Your task to perform on an android device: Go to calendar. Show me events next week Image 0: 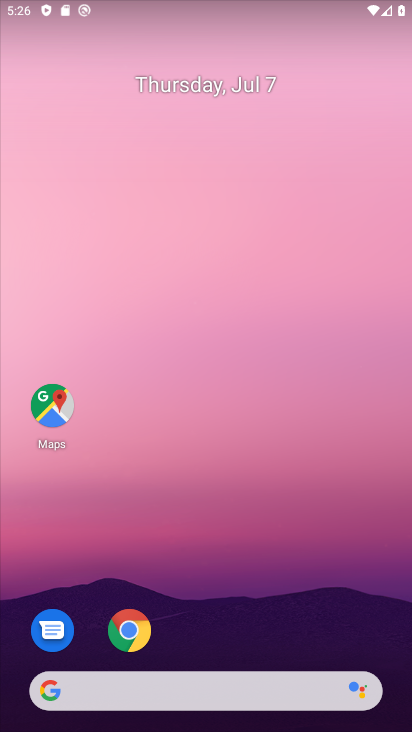
Step 0: press home button
Your task to perform on an android device: Go to calendar. Show me events next week Image 1: 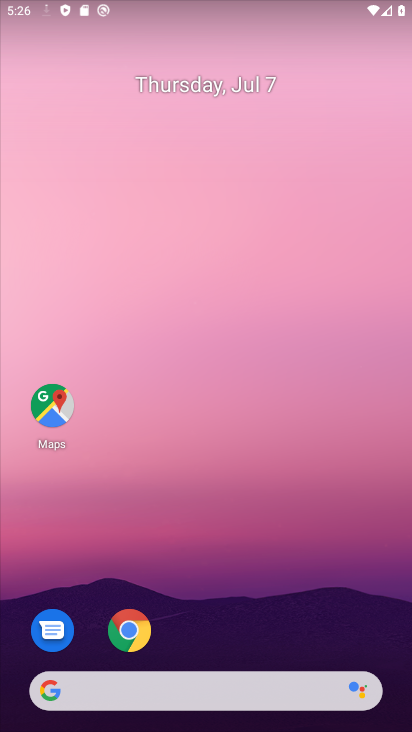
Step 1: drag from (261, 654) to (201, 69)
Your task to perform on an android device: Go to calendar. Show me events next week Image 2: 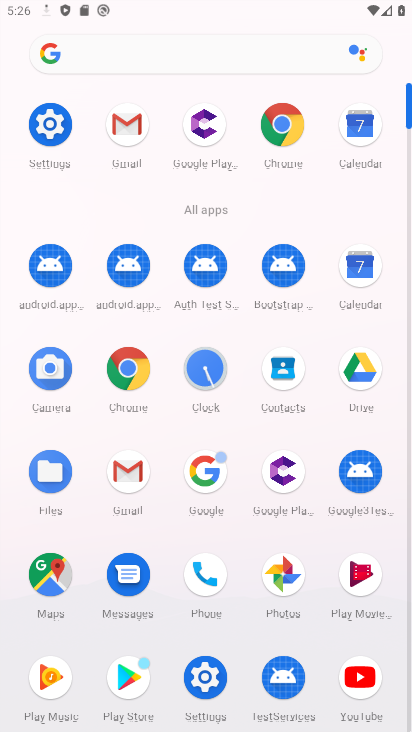
Step 2: click (368, 127)
Your task to perform on an android device: Go to calendar. Show me events next week Image 3: 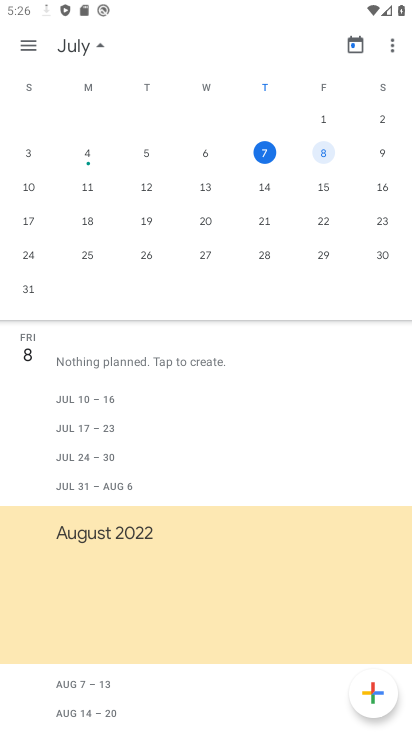
Step 3: click (388, 154)
Your task to perform on an android device: Go to calendar. Show me events next week Image 4: 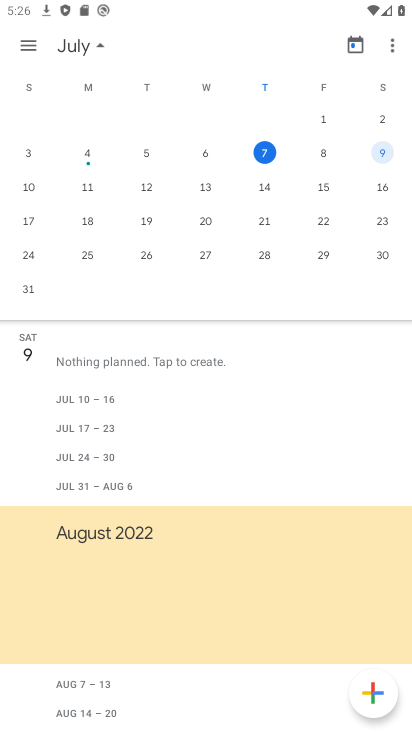
Step 4: click (34, 195)
Your task to perform on an android device: Go to calendar. Show me events next week Image 5: 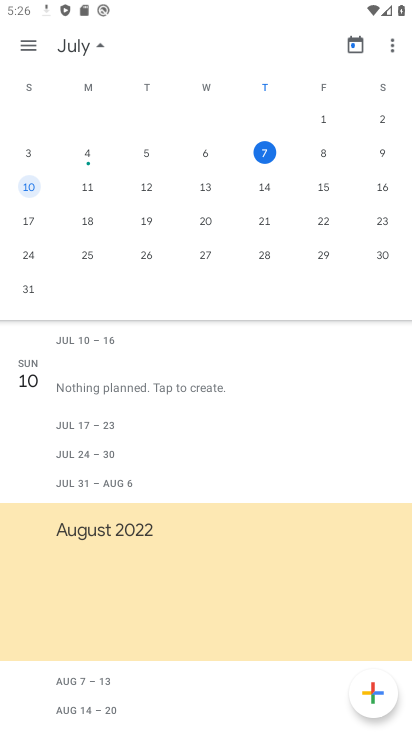
Step 5: click (95, 192)
Your task to perform on an android device: Go to calendar. Show me events next week Image 6: 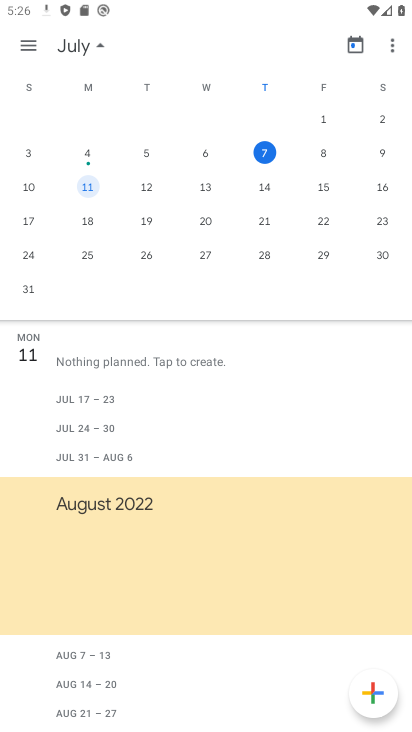
Step 6: click (151, 188)
Your task to perform on an android device: Go to calendar. Show me events next week Image 7: 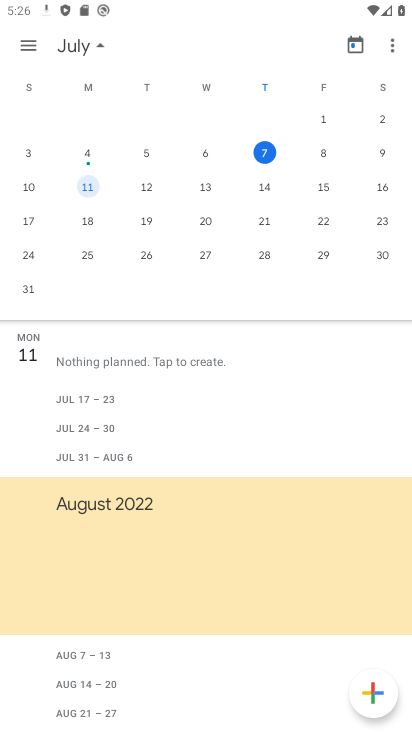
Step 7: click (205, 185)
Your task to perform on an android device: Go to calendar. Show me events next week Image 8: 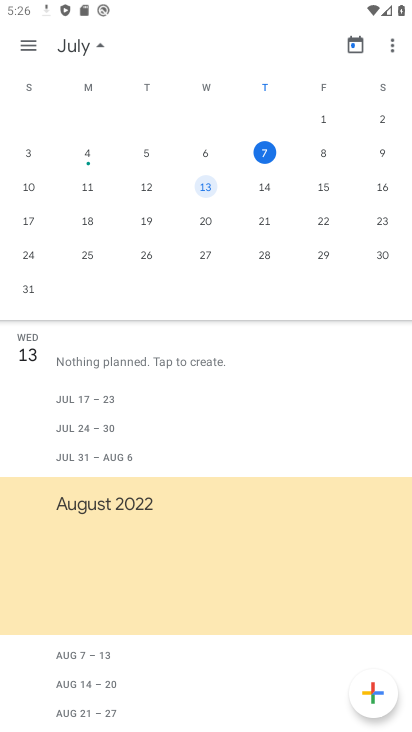
Step 8: click (265, 188)
Your task to perform on an android device: Go to calendar. Show me events next week Image 9: 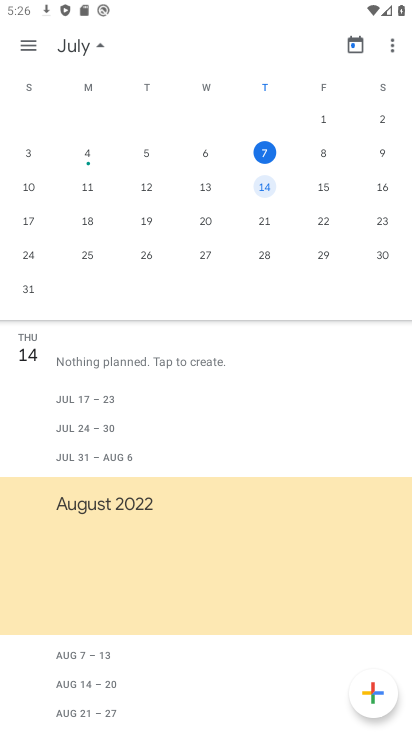
Step 9: task complete